Your task to perform on an android device: Open the map Image 0: 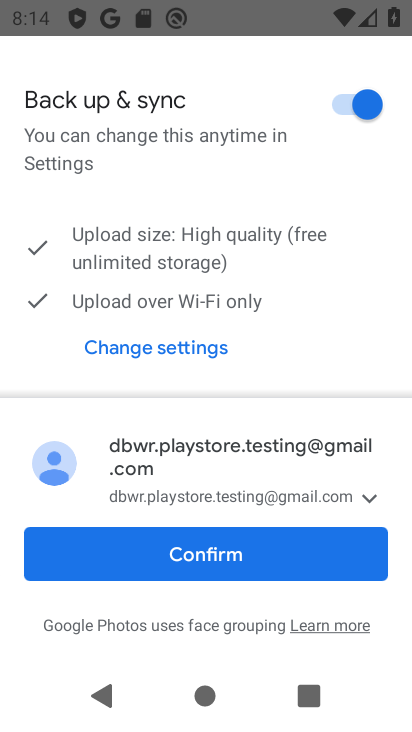
Step 0: press back button
Your task to perform on an android device: Open the map Image 1: 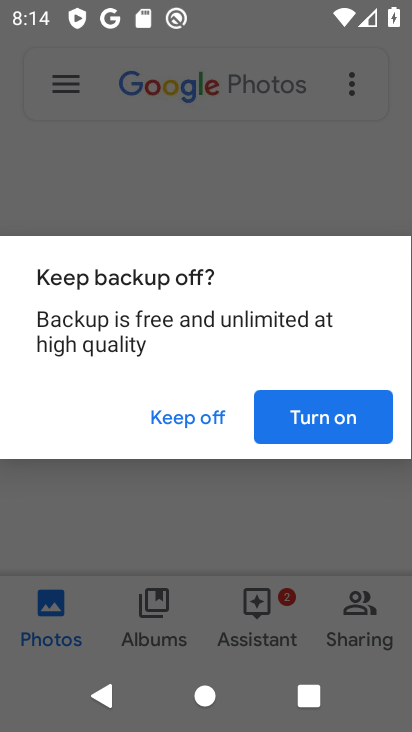
Step 1: press home button
Your task to perform on an android device: Open the map Image 2: 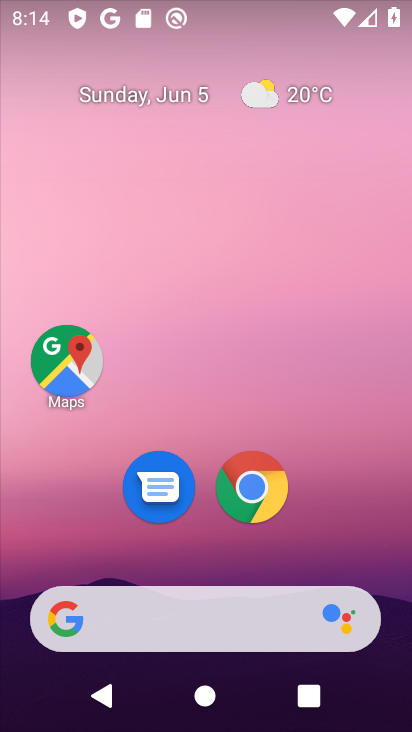
Step 2: click (74, 366)
Your task to perform on an android device: Open the map Image 3: 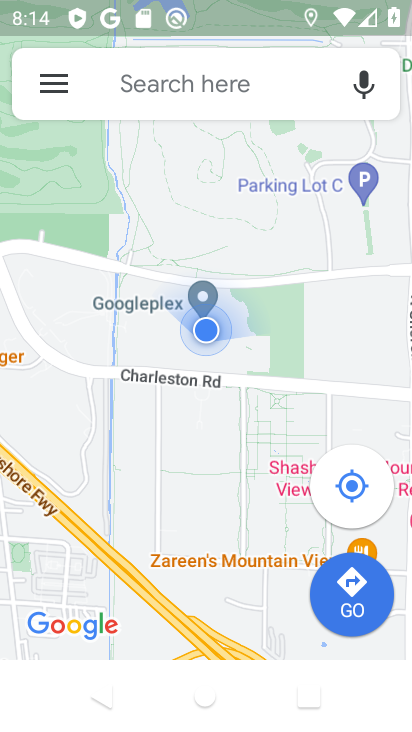
Step 3: task complete